Your task to perform on an android device: change alarm snooze length Image 0: 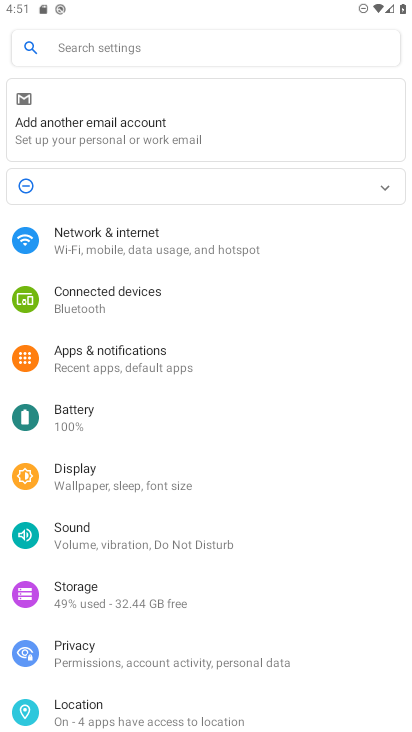
Step 0: press home button
Your task to perform on an android device: change alarm snooze length Image 1: 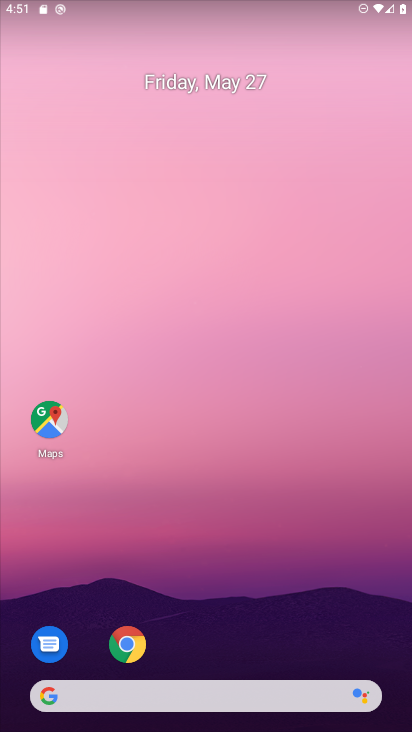
Step 1: drag from (201, 650) to (206, 113)
Your task to perform on an android device: change alarm snooze length Image 2: 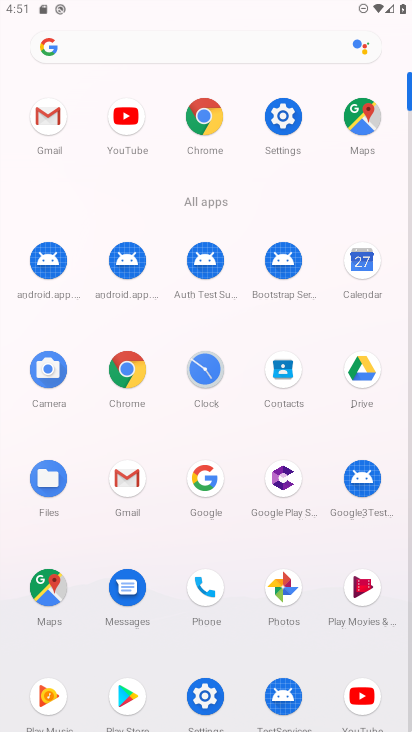
Step 2: click (202, 363)
Your task to perform on an android device: change alarm snooze length Image 3: 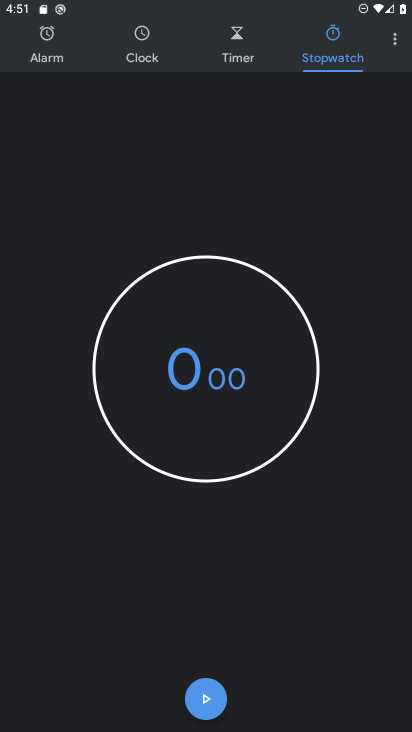
Step 3: click (397, 48)
Your task to perform on an android device: change alarm snooze length Image 4: 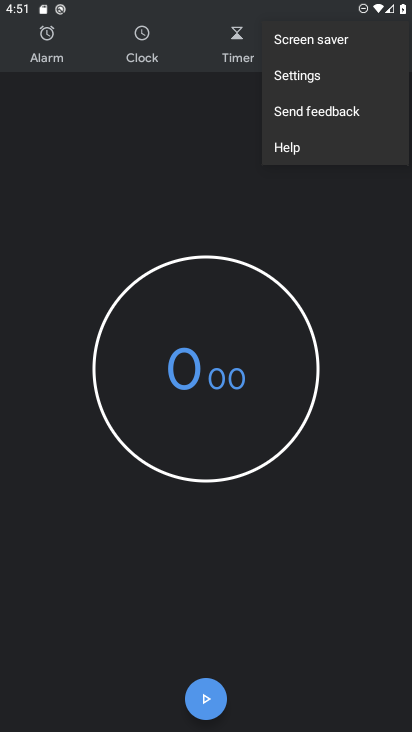
Step 4: click (281, 79)
Your task to perform on an android device: change alarm snooze length Image 5: 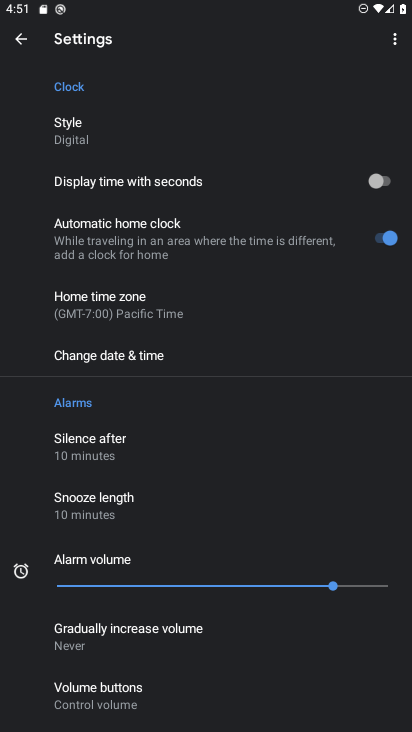
Step 5: click (131, 523)
Your task to perform on an android device: change alarm snooze length Image 6: 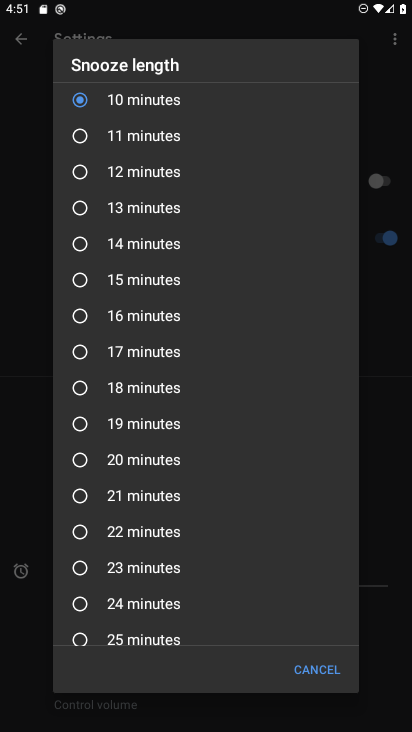
Step 6: click (88, 632)
Your task to perform on an android device: change alarm snooze length Image 7: 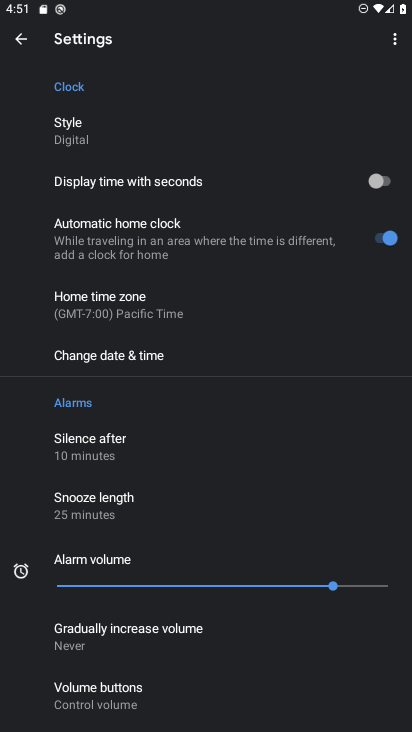
Step 7: task complete